Your task to perform on an android device: open app "Airtel Thanks" (install if not already installed) Image 0: 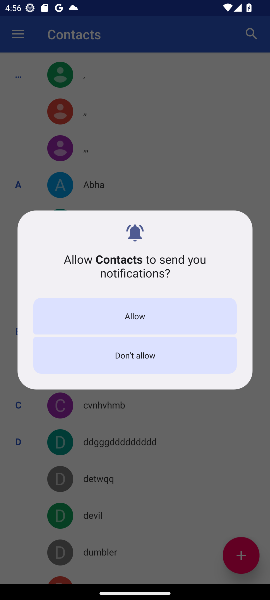
Step 0: press home button
Your task to perform on an android device: open app "Airtel Thanks" (install if not already installed) Image 1: 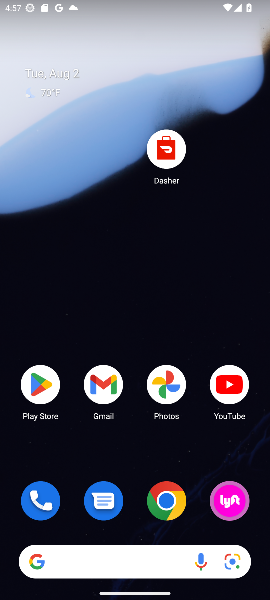
Step 1: click (31, 387)
Your task to perform on an android device: open app "Airtel Thanks" (install if not already installed) Image 2: 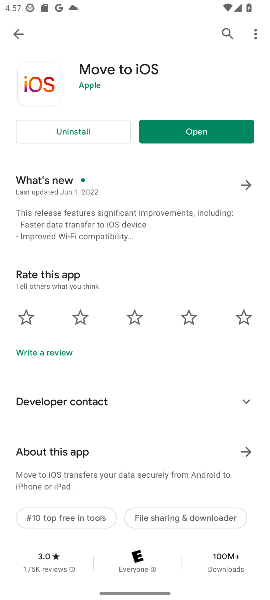
Step 2: click (231, 31)
Your task to perform on an android device: open app "Airtel Thanks" (install if not already installed) Image 3: 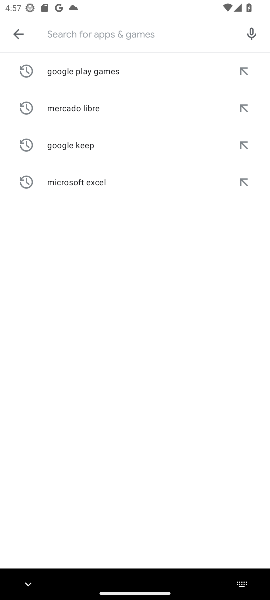
Step 3: type "Airtel Thanks"
Your task to perform on an android device: open app "Airtel Thanks" (install if not already installed) Image 4: 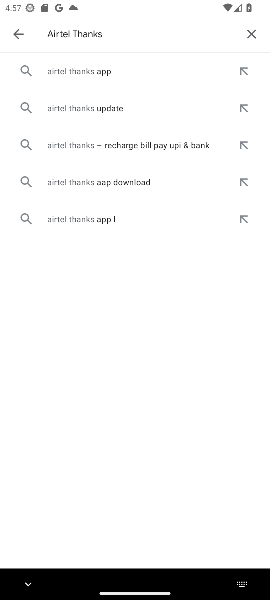
Step 4: click (53, 75)
Your task to perform on an android device: open app "Airtel Thanks" (install if not already installed) Image 5: 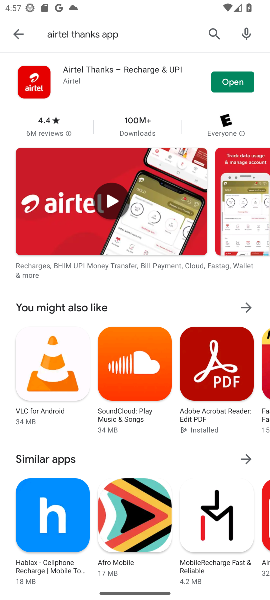
Step 5: click (235, 86)
Your task to perform on an android device: open app "Airtel Thanks" (install if not already installed) Image 6: 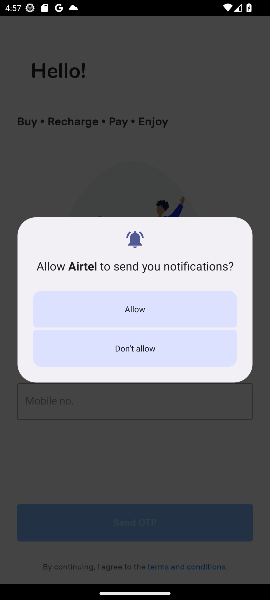
Step 6: task complete